Your task to perform on an android device: turn off smart reply in the gmail app Image 0: 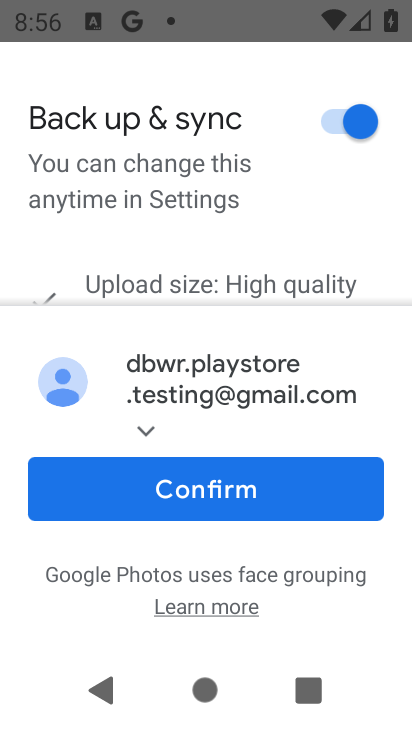
Step 0: press home button
Your task to perform on an android device: turn off smart reply in the gmail app Image 1: 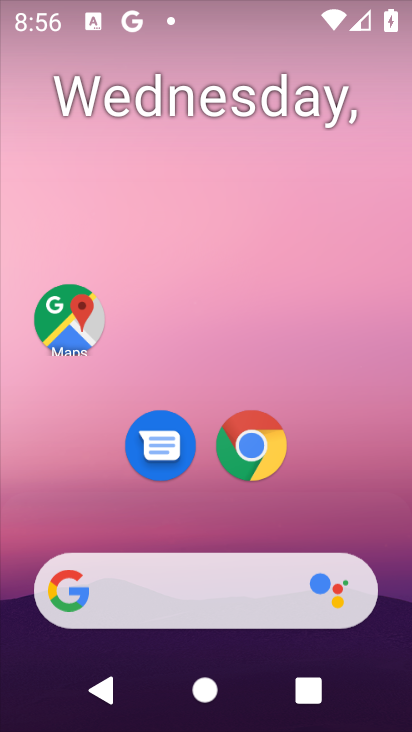
Step 1: drag from (361, 477) to (153, 29)
Your task to perform on an android device: turn off smart reply in the gmail app Image 2: 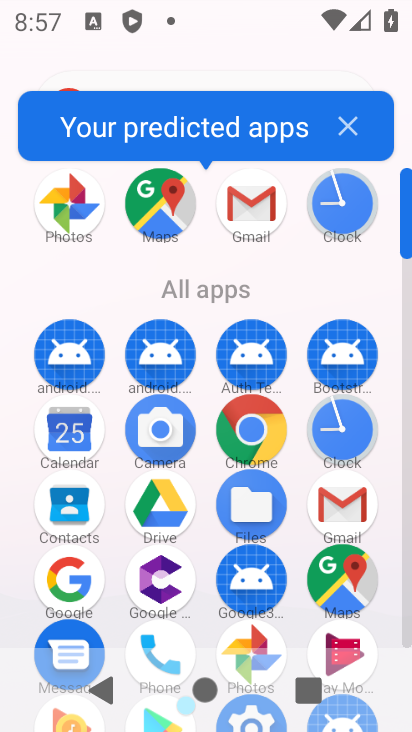
Step 2: click (333, 501)
Your task to perform on an android device: turn off smart reply in the gmail app Image 3: 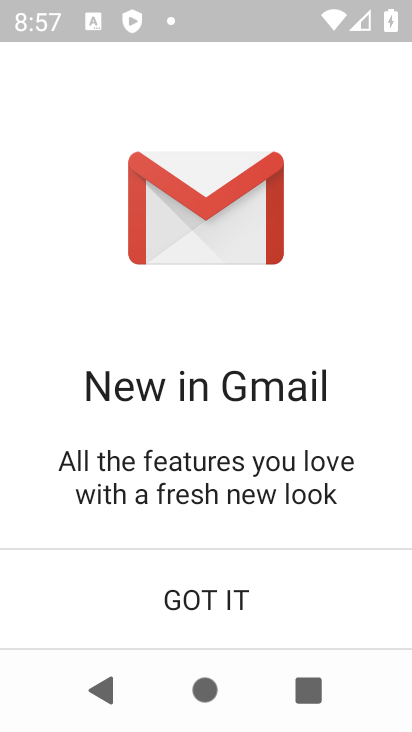
Step 3: click (217, 620)
Your task to perform on an android device: turn off smart reply in the gmail app Image 4: 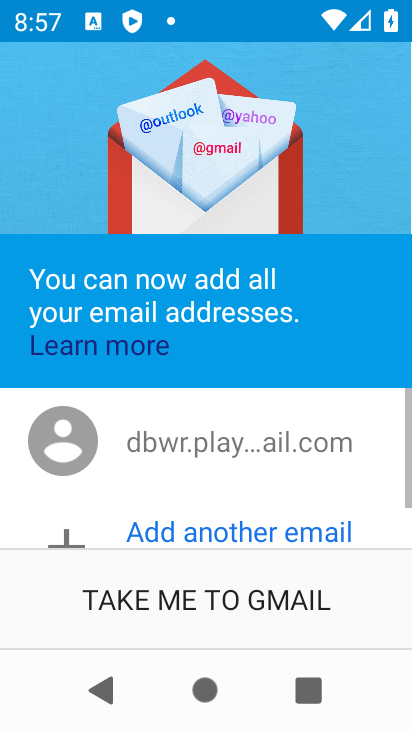
Step 4: click (216, 620)
Your task to perform on an android device: turn off smart reply in the gmail app Image 5: 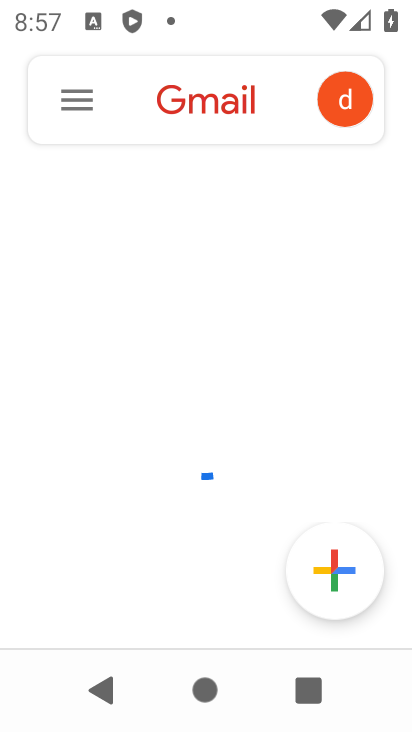
Step 5: click (72, 115)
Your task to perform on an android device: turn off smart reply in the gmail app Image 6: 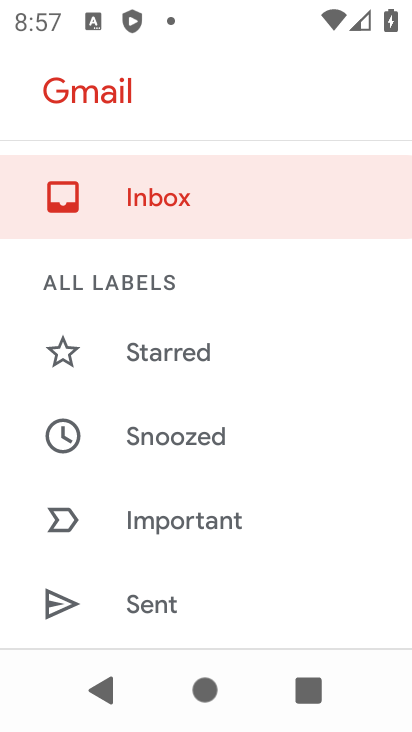
Step 6: drag from (164, 534) to (152, 185)
Your task to perform on an android device: turn off smart reply in the gmail app Image 7: 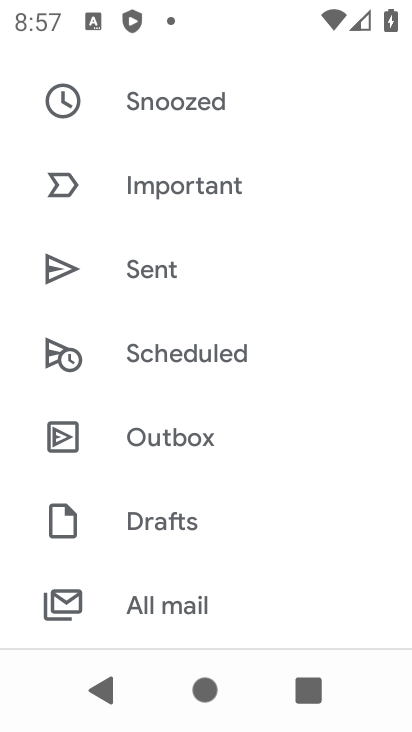
Step 7: drag from (204, 561) to (233, 158)
Your task to perform on an android device: turn off smart reply in the gmail app Image 8: 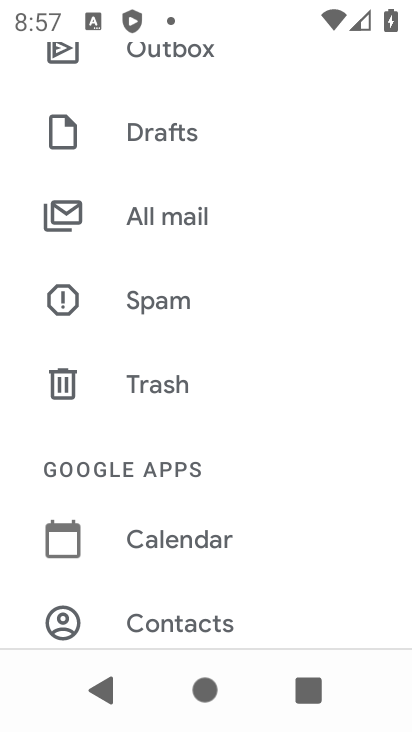
Step 8: drag from (247, 474) to (247, 154)
Your task to perform on an android device: turn off smart reply in the gmail app Image 9: 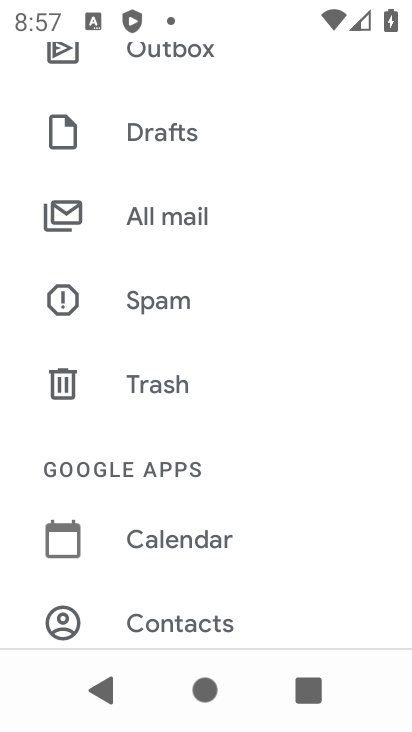
Step 9: drag from (149, 542) to (179, 207)
Your task to perform on an android device: turn off smart reply in the gmail app Image 10: 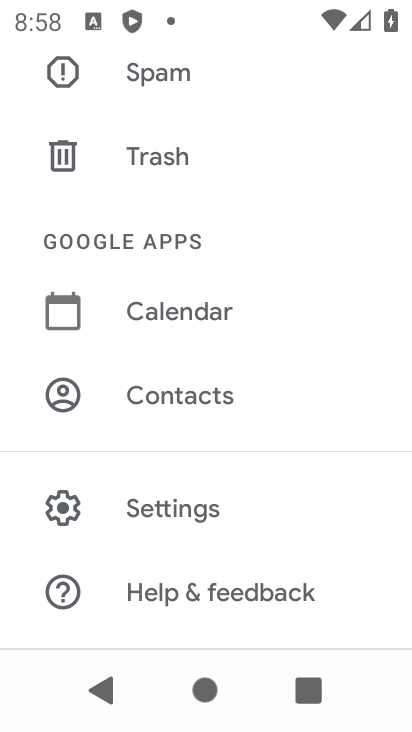
Step 10: click (187, 516)
Your task to perform on an android device: turn off smart reply in the gmail app Image 11: 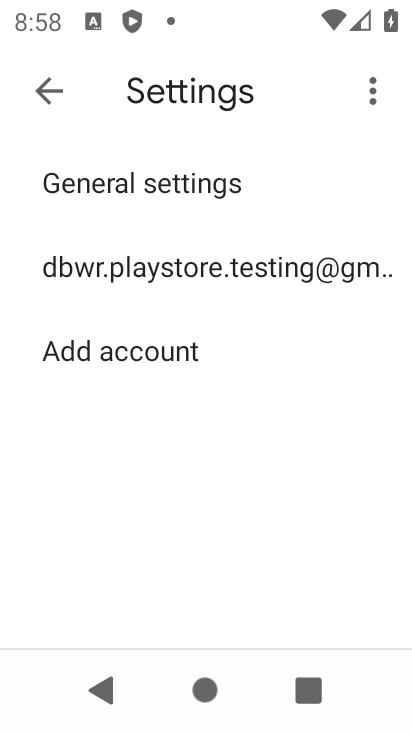
Step 11: drag from (231, 585) to (233, 221)
Your task to perform on an android device: turn off smart reply in the gmail app Image 12: 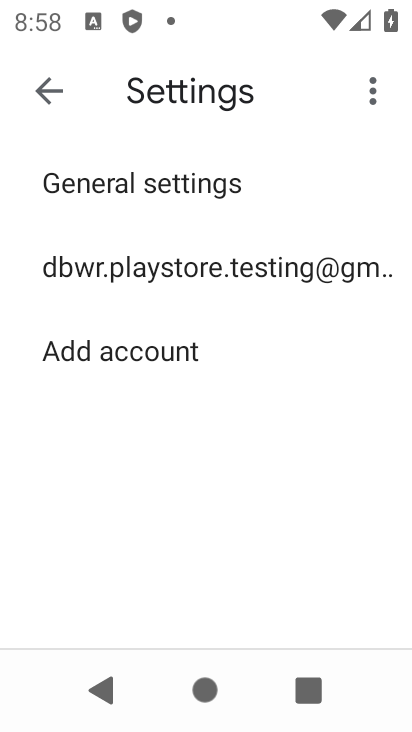
Step 12: click (184, 277)
Your task to perform on an android device: turn off smart reply in the gmail app Image 13: 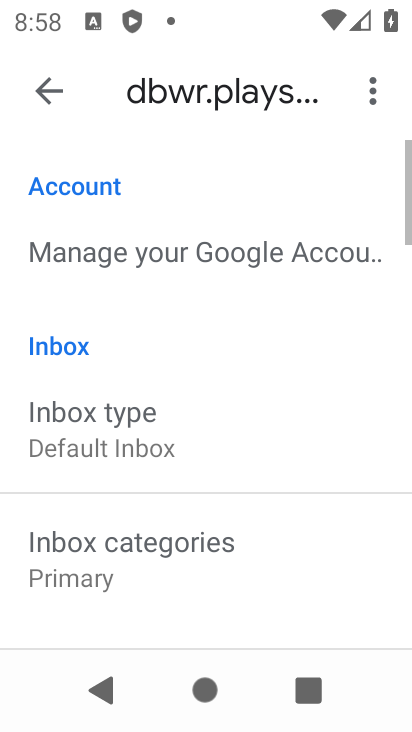
Step 13: drag from (188, 564) to (194, 125)
Your task to perform on an android device: turn off smart reply in the gmail app Image 14: 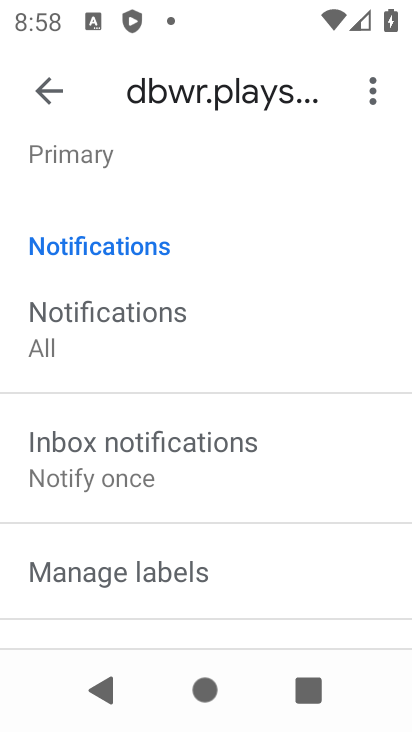
Step 14: drag from (217, 575) to (228, 70)
Your task to perform on an android device: turn off smart reply in the gmail app Image 15: 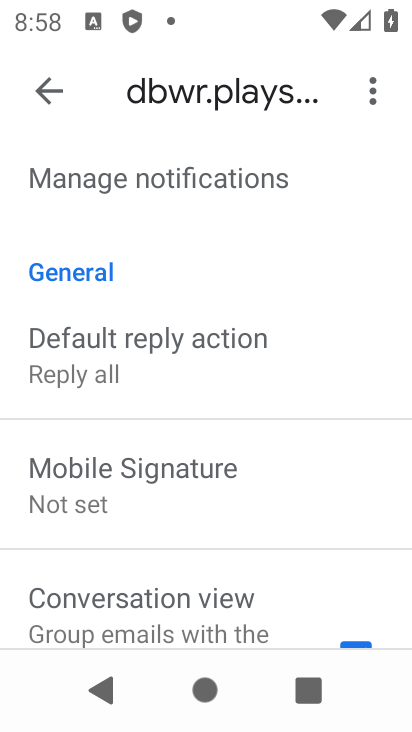
Step 15: drag from (189, 526) to (182, 139)
Your task to perform on an android device: turn off smart reply in the gmail app Image 16: 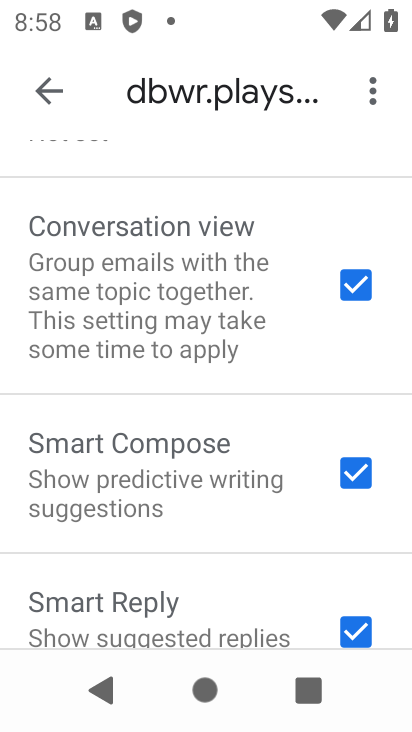
Step 16: drag from (161, 598) to (103, 260)
Your task to perform on an android device: turn off smart reply in the gmail app Image 17: 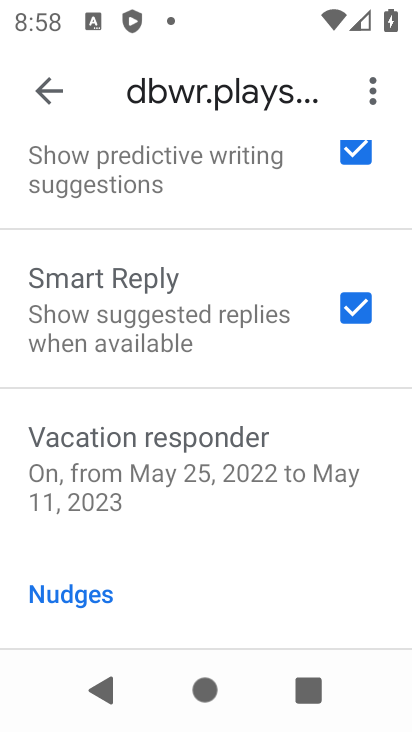
Step 17: click (356, 318)
Your task to perform on an android device: turn off smart reply in the gmail app Image 18: 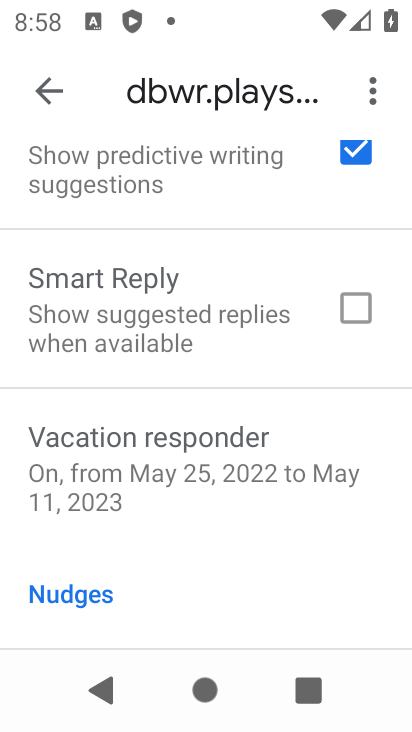
Step 18: task complete